Your task to perform on an android device: Search for the best books on Goodreads Image 0: 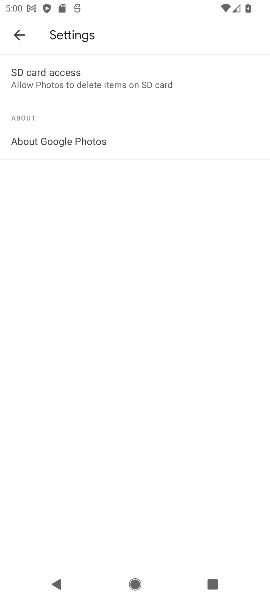
Step 0: press home button
Your task to perform on an android device: Search for the best books on Goodreads Image 1: 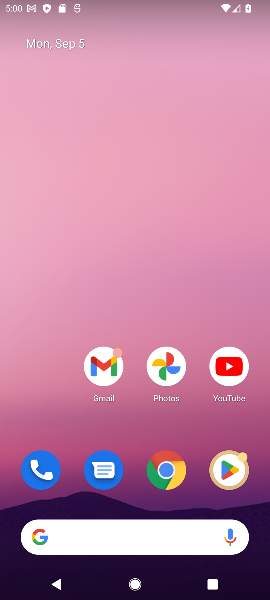
Step 1: click (160, 543)
Your task to perform on an android device: Search for the best books on Goodreads Image 2: 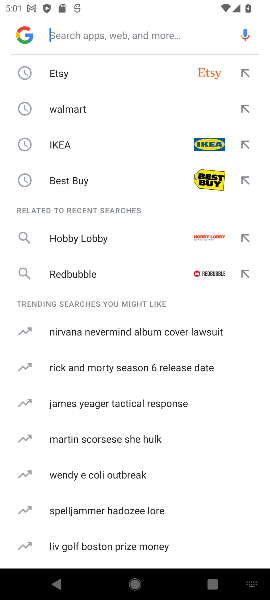
Step 2: type "good reads"
Your task to perform on an android device: Search for the best books on Goodreads Image 3: 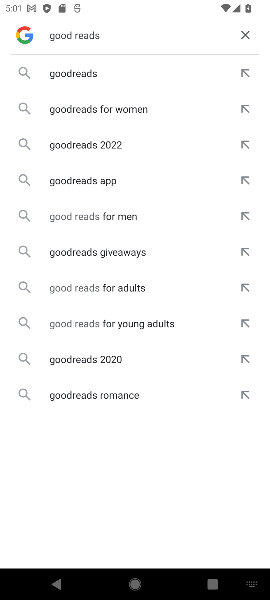
Step 3: click (107, 80)
Your task to perform on an android device: Search for the best books on Goodreads Image 4: 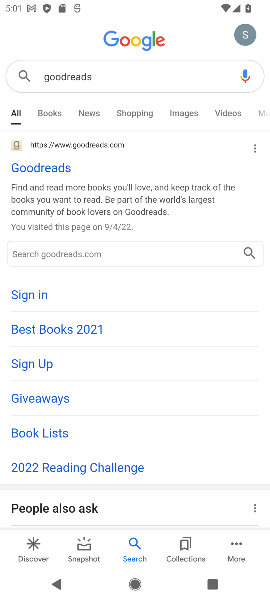
Step 4: click (58, 162)
Your task to perform on an android device: Search for the best books on Goodreads Image 5: 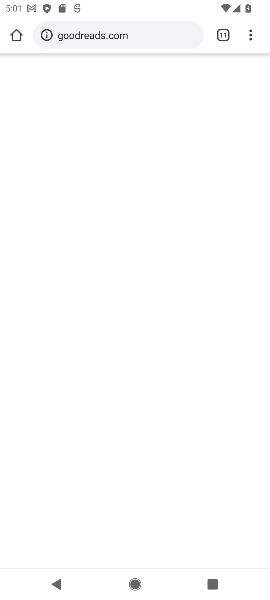
Step 5: click (55, 163)
Your task to perform on an android device: Search for the best books on Goodreads Image 6: 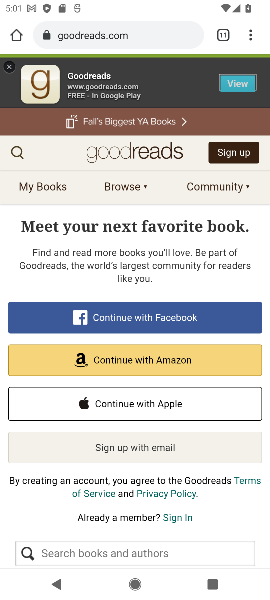
Step 6: click (21, 156)
Your task to perform on an android device: Search for the best books on Goodreads Image 7: 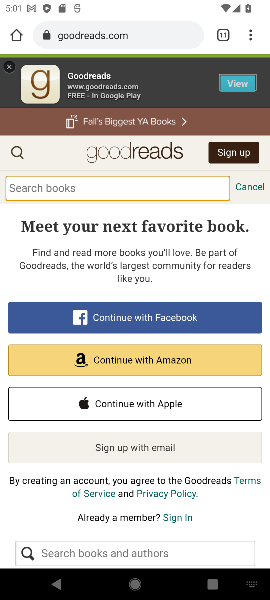
Step 7: click (33, 187)
Your task to perform on an android device: Search for the best books on Goodreads Image 8: 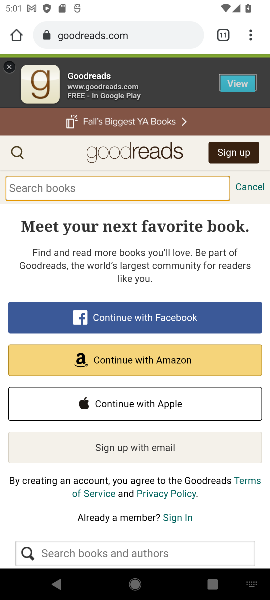
Step 8: type "best books"
Your task to perform on an android device: Search for the best books on Goodreads Image 9: 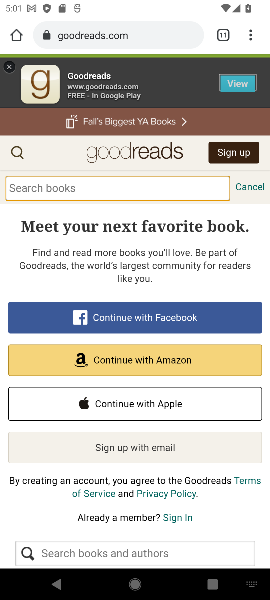
Step 9: type ""
Your task to perform on an android device: Search for the best books on Goodreads Image 10: 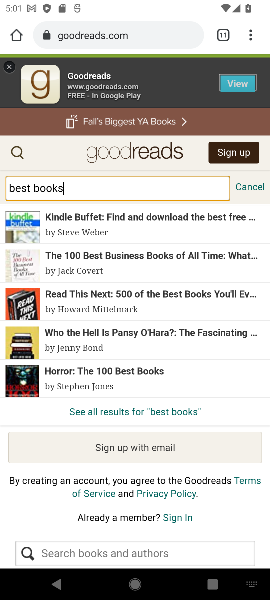
Step 10: drag from (248, 334) to (226, 444)
Your task to perform on an android device: Search for the best books on Goodreads Image 11: 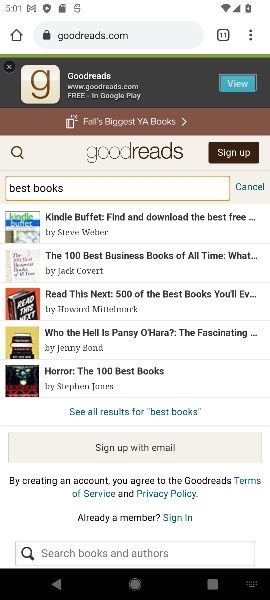
Step 11: drag from (202, 42) to (208, 12)
Your task to perform on an android device: Search for the best books on Goodreads Image 12: 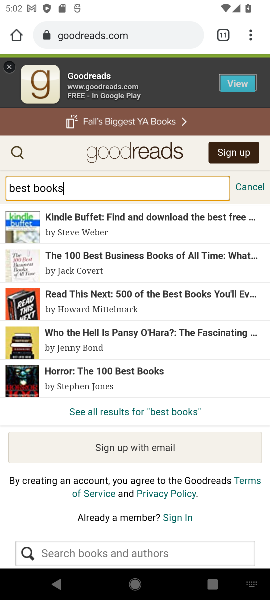
Step 12: drag from (232, 342) to (224, 445)
Your task to perform on an android device: Search for the best books on Goodreads Image 13: 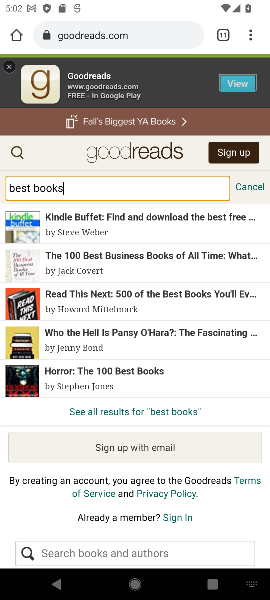
Step 13: drag from (73, 157) to (96, 302)
Your task to perform on an android device: Search for the best books on Goodreads Image 14: 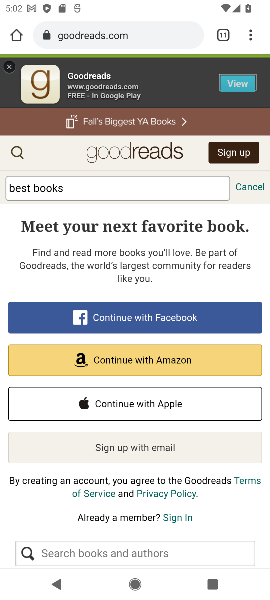
Step 14: press enter
Your task to perform on an android device: Search for the best books on Goodreads Image 15: 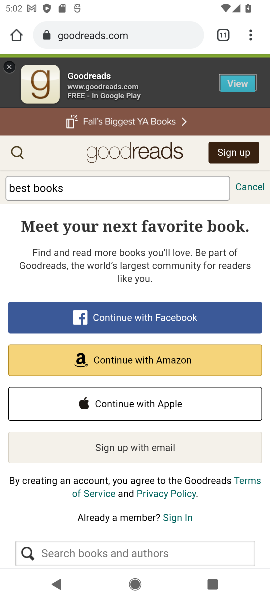
Step 15: task complete